Your task to perform on an android device: Go to Yahoo.com Image 0: 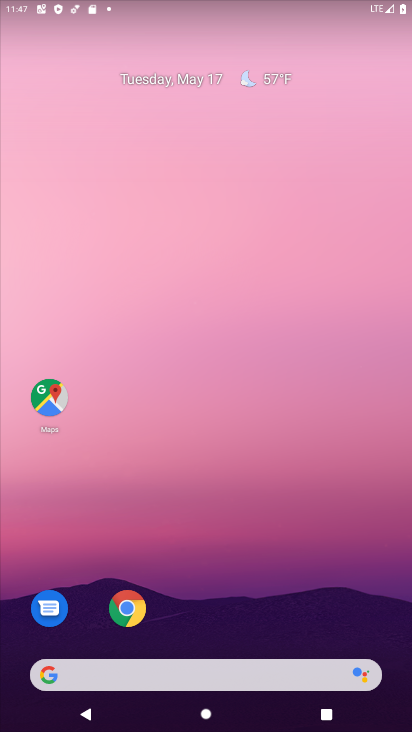
Step 0: click (132, 608)
Your task to perform on an android device: Go to Yahoo.com Image 1: 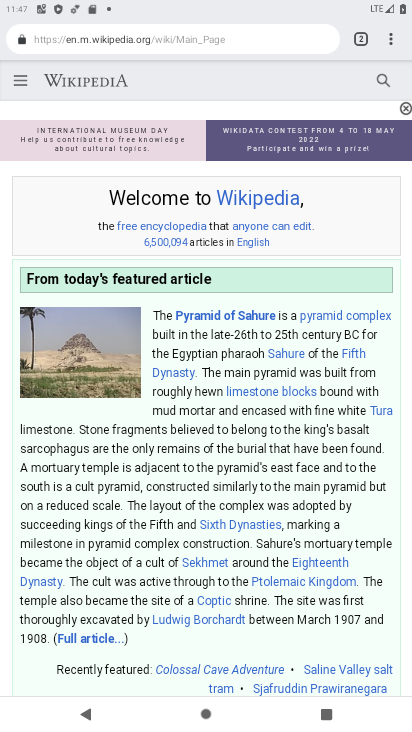
Step 1: click (391, 34)
Your task to perform on an android device: Go to Yahoo.com Image 2: 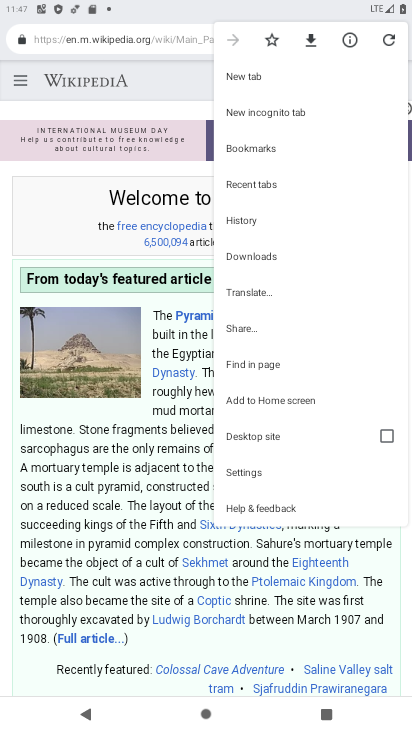
Step 2: click (253, 78)
Your task to perform on an android device: Go to Yahoo.com Image 3: 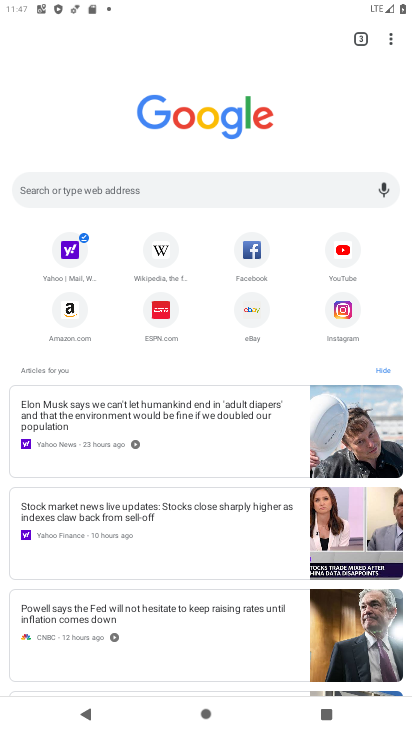
Step 3: click (65, 248)
Your task to perform on an android device: Go to Yahoo.com Image 4: 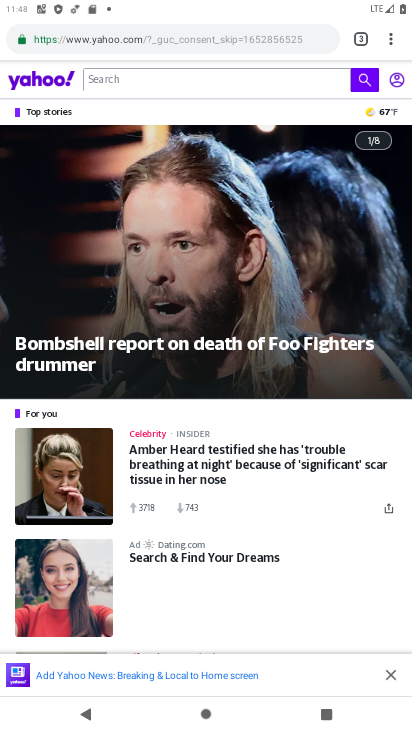
Step 4: task complete